Your task to perform on an android device: Open Yahoo.com Image 0: 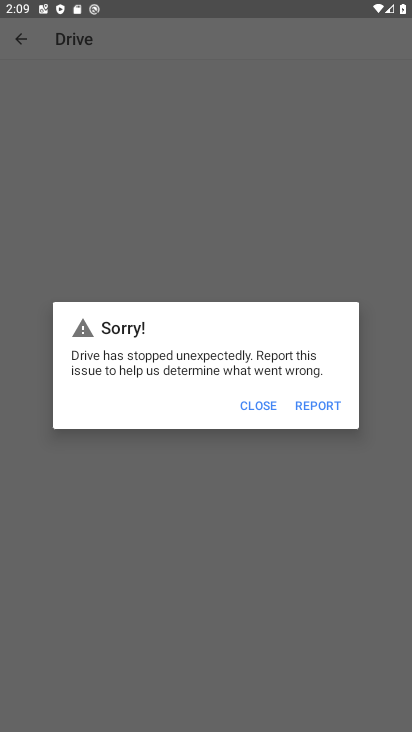
Step 0: press home button
Your task to perform on an android device: Open Yahoo.com Image 1: 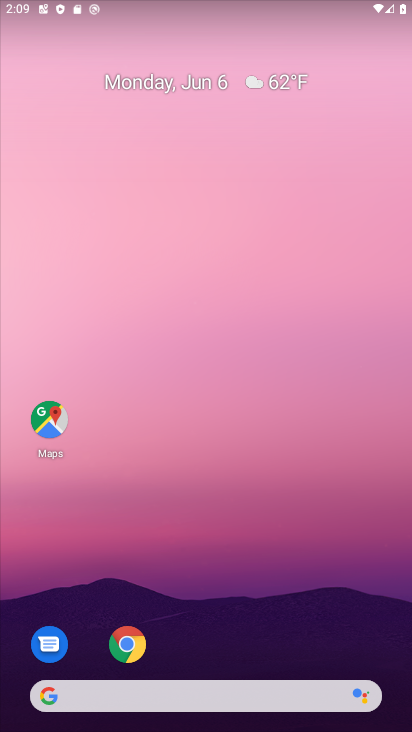
Step 1: click (125, 639)
Your task to perform on an android device: Open Yahoo.com Image 2: 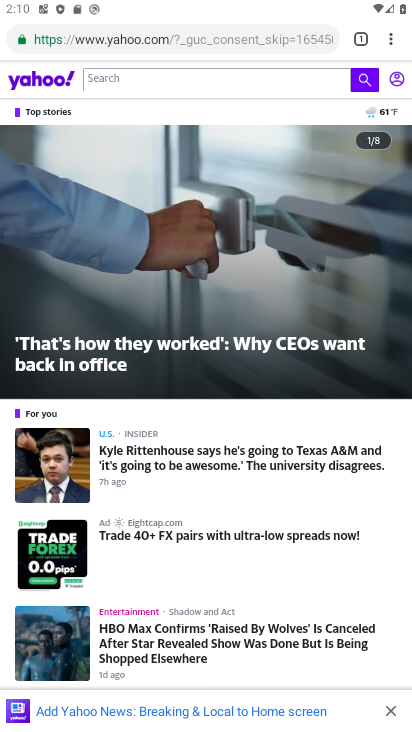
Step 2: task complete